Your task to perform on an android device: Open the Play Movies app and select the watchlist tab. Image 0: 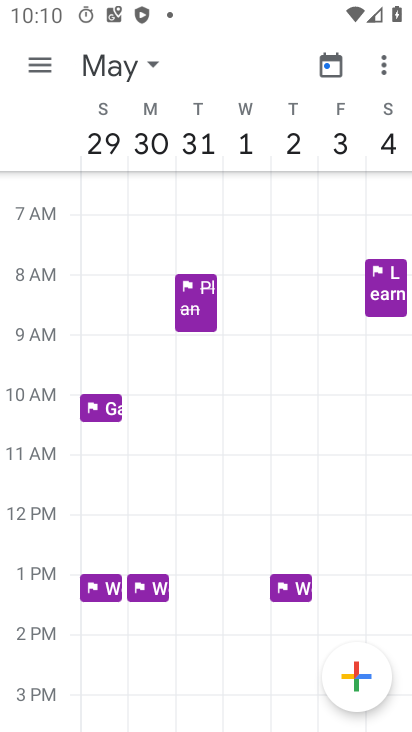
Step 0: press home button
Your task to perform on an android device: Open the Play Movies app and select the watchlist tab. Image 1: 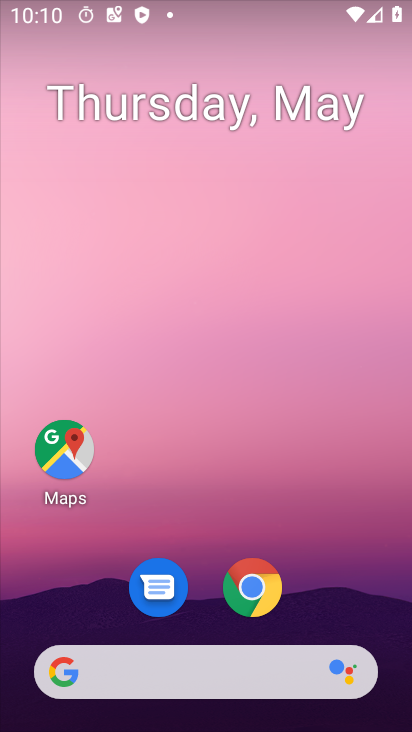
Step 1: drag from (353, 619) to (397, 9)
Your task to perform on an android device: Open the Play Movies app and select the watchlist tab. Image 2: 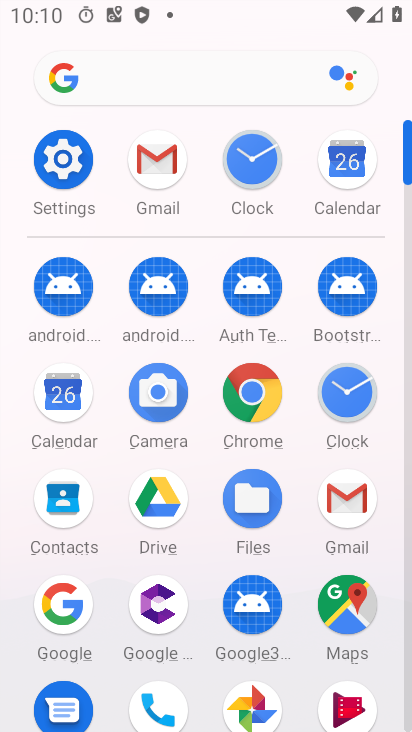
Step 2: click (406, 575)
Your task to perform on an android device: Open the Play Movies app and select the watchlist tab. Image 3: 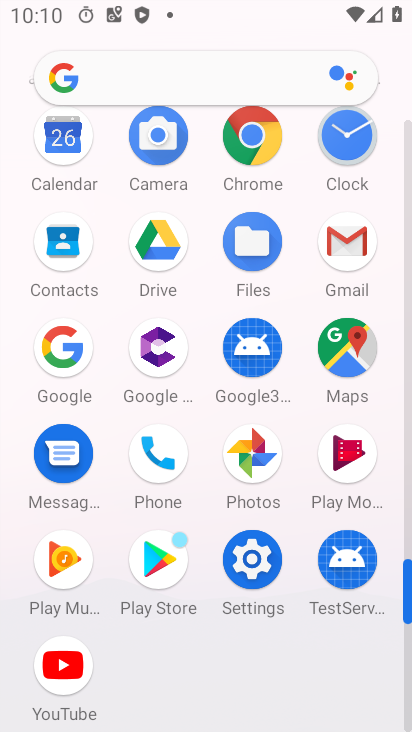
Step 3: click (344, 453)
Your task to perform on an android device: Open the Play Movies app and select the watchlist tab. Image 4: 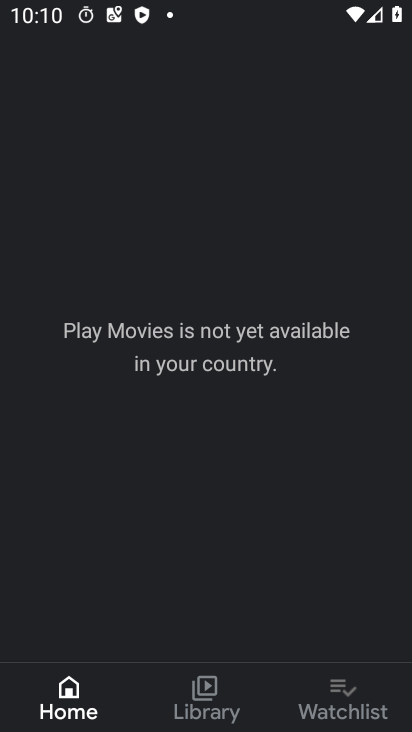
Step 4: click (339, 701)
Your task to perform on an android device: Open the Play Movies app and select the watchlist tab. Image 5: 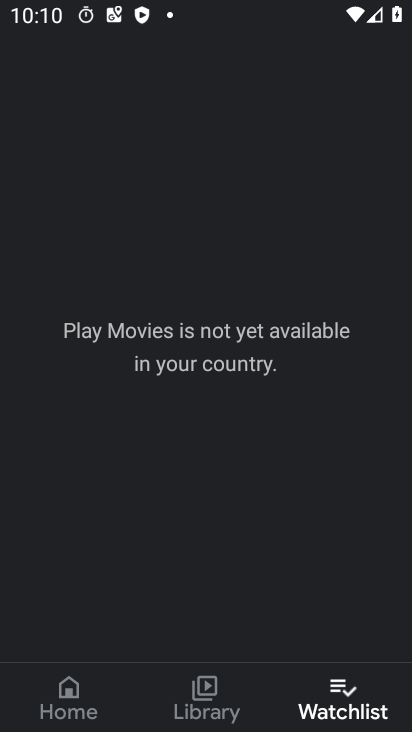
Step 5: task complete